Your task to perform on an android device: turn on improve location accuracy Image 0: 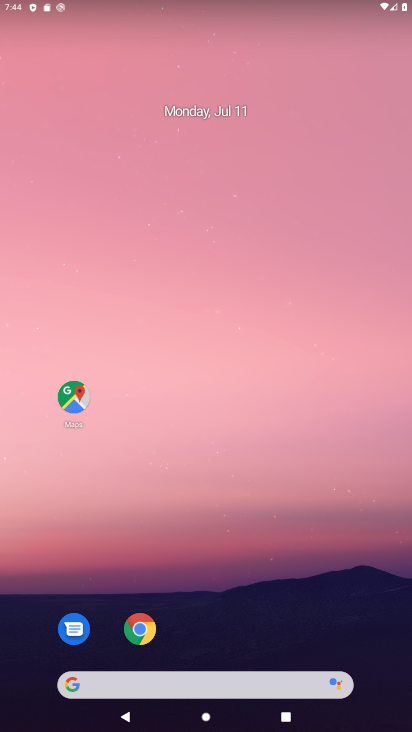
Step 0: drag from (262, 658) to (344, 18)
Your task to perform on an android device: turn on improve location accuracy Image 1: 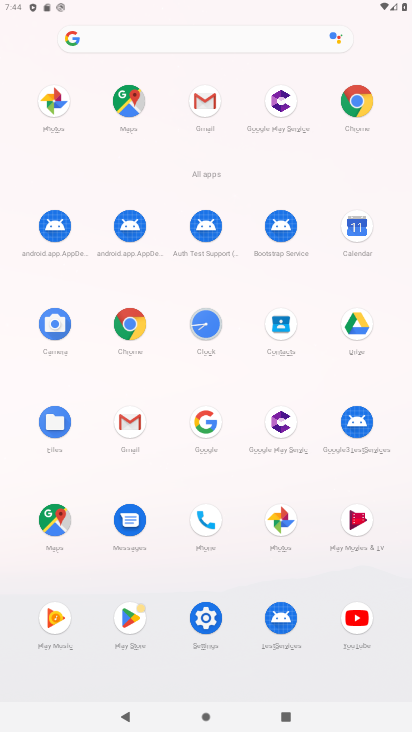
Step 1: click (210, 618)
Your task to perform on an android device: turn on improve location accuracy Image 2: 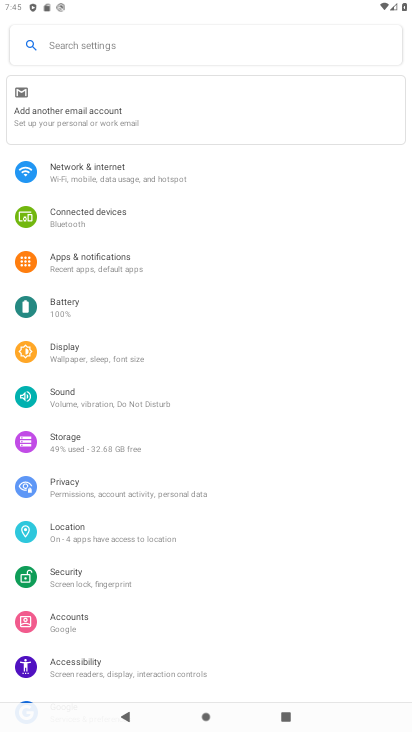
Step 2: click (76, 546)
Your task to perform on an android device: turn on improve location accuracy Image 3: 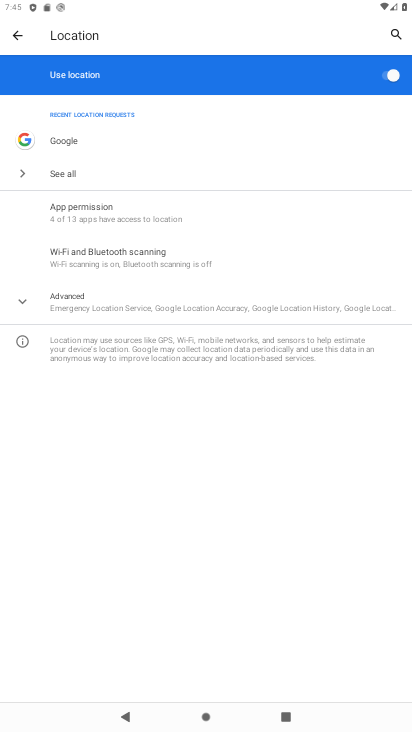
Step 3: click (91, 303)
Your task to perform on an android device: turn on improve location accuracy Image 4: 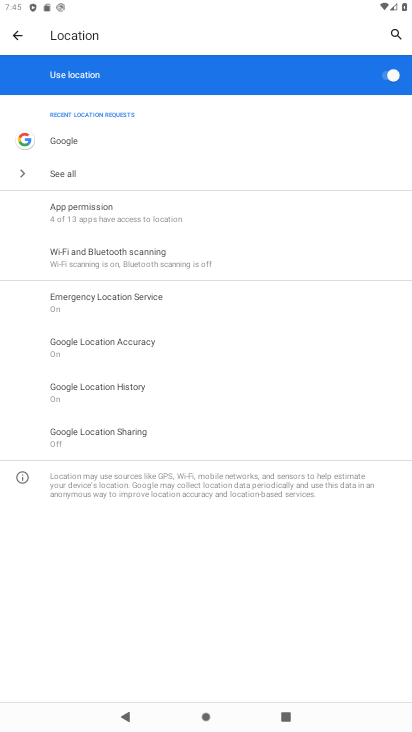
Step 4: click (124, 336)
Your task to perform on an android device: turn on improve location accuracy Image 5: 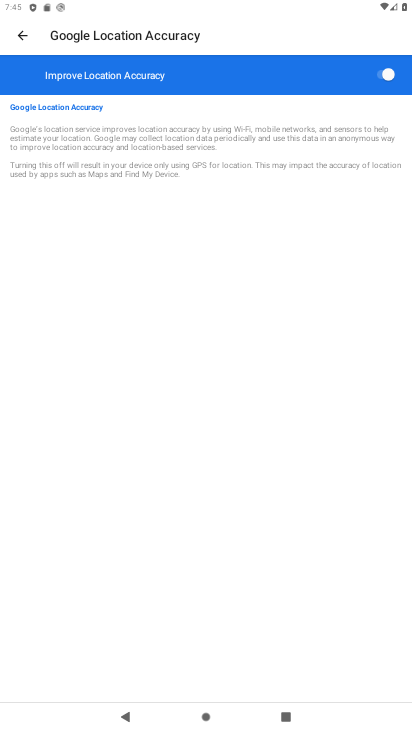
Step 5: task complete